Your task to perform on an android device: move an email to a new category in the gmail app Image 0: 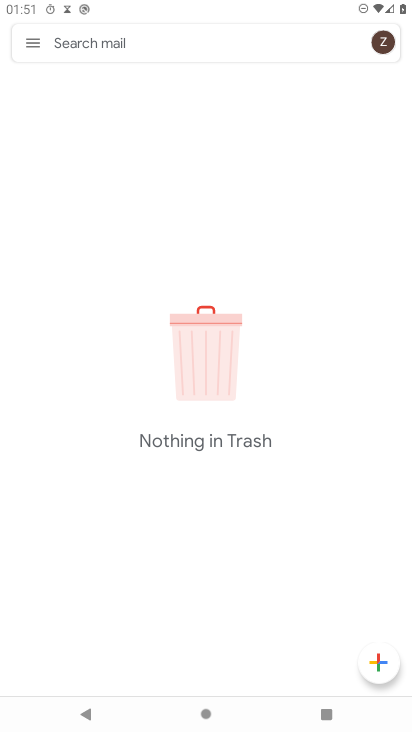
Step 0: press home button
Your task to perform on an android device: move an email to a new category in the gmail app Image 1: 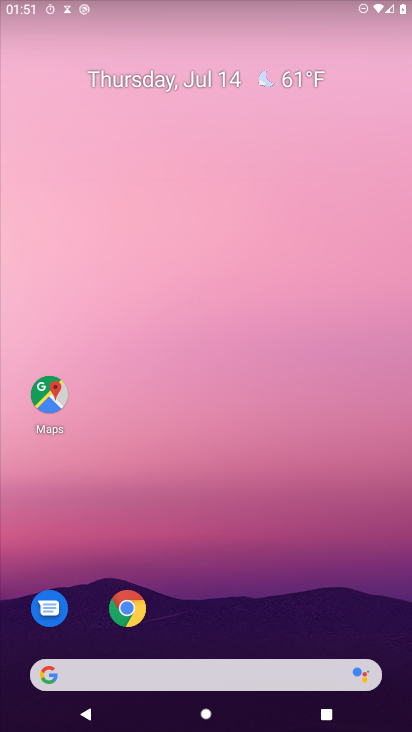
Step 1: drag from (309, 532) to (316, 70)
Your task to perform on an android device: move an email to a new category in the gmail app Image 2: 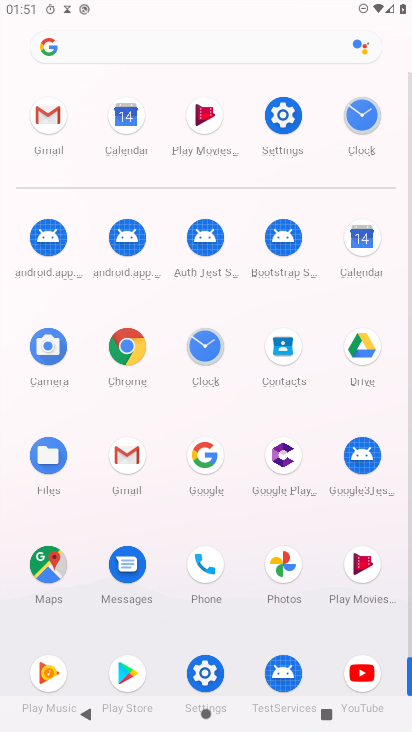
Step 2: click (54, 108)
Your task to perform on an android device: move an email to a new category in the gmail app Image 3: 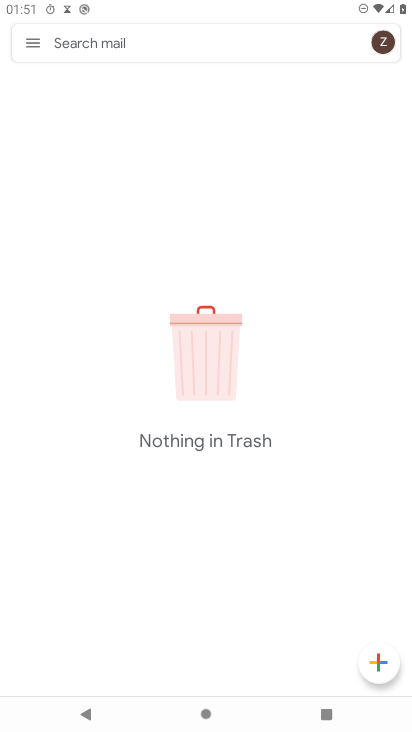
Step 3: click (32, 41)
Your task to perform on an android device: move an email to a new category in the gmail app Image 4: 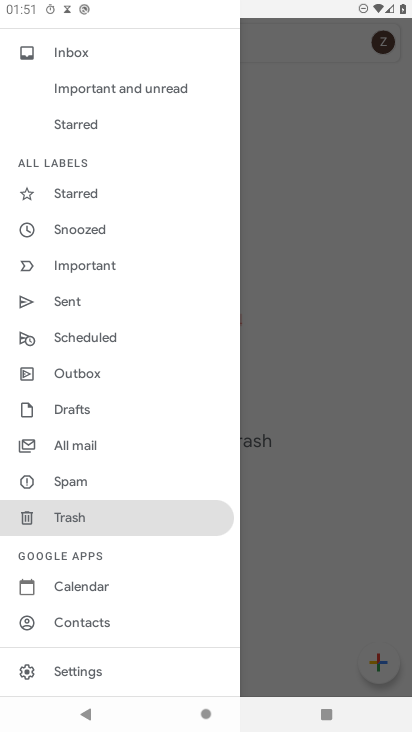
Step 4: click (84, 441)
Your task to perform on an android device: move an email to a new category in the gmail app Image 5: 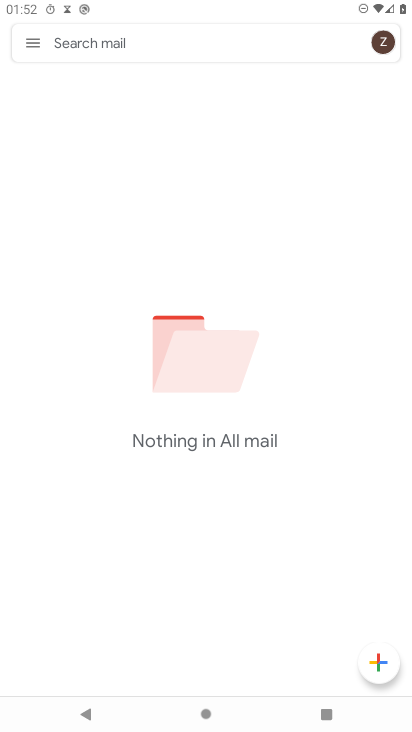
Step 5: task complete